Your task to perform on an android device: allow notifications from all sites in the chrome app Image 0: 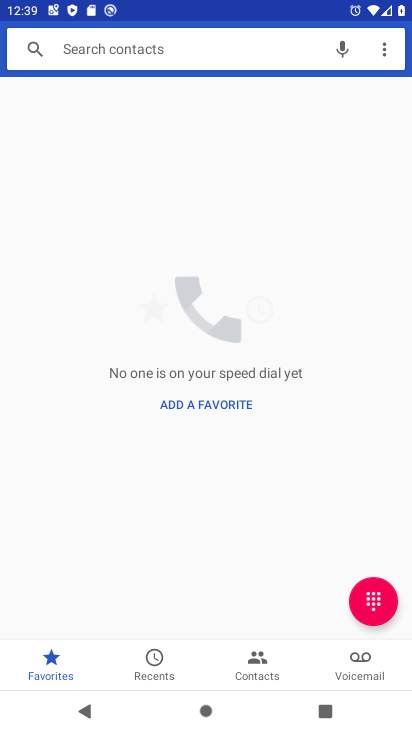
Step 0: press home button
Your task to perform on an android device: allow notifications from all sites in the chrome app Image 1: 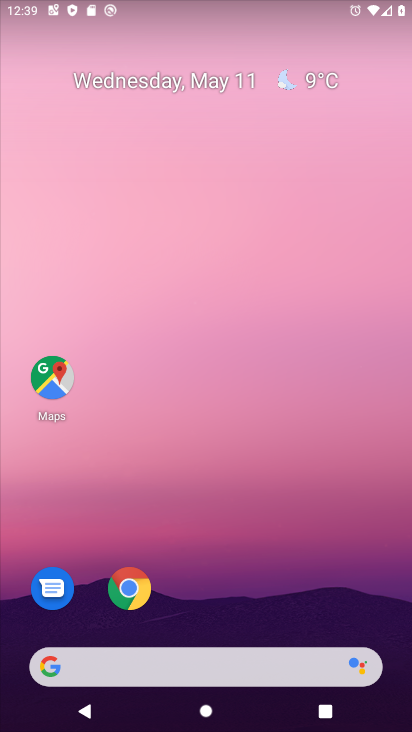
Step 1: click (132, 595)
Your task to perform on an android device: allow notifications from all sites in the chrome app Image 2: 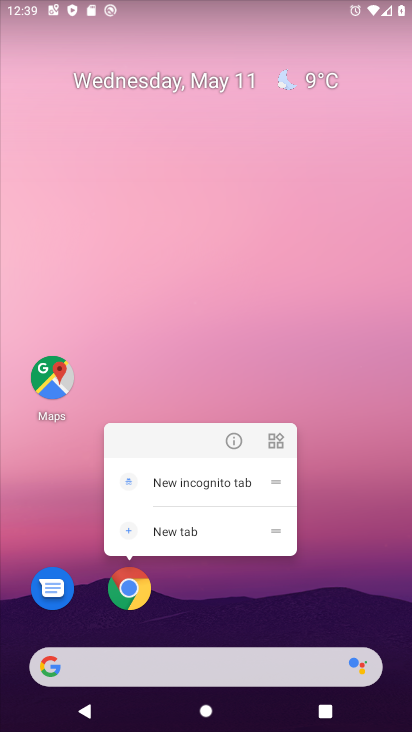
Step 2: click (120, 594)
Your task to perform on an android device: allow notifications from all sites in the chrome app Image 3: 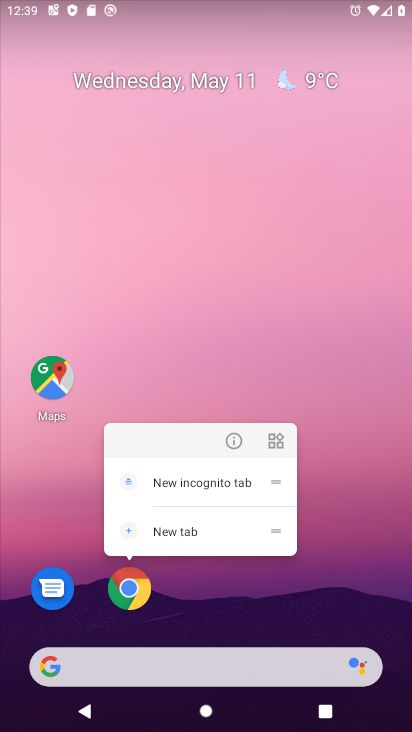
Step 3: click (133, 590)
Your task to perform on an android device: allow notifications from all sites in the chrome app Image 4: 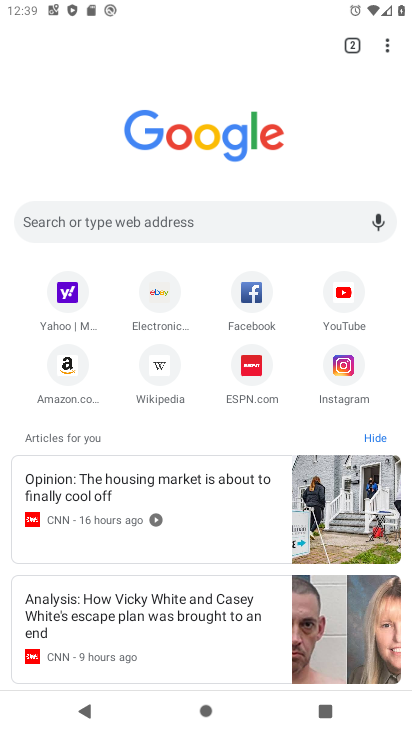
Step 4: click (387, 51)
Your task to perform on an android device: allow notifications from all sites in the chrome app Image 5: 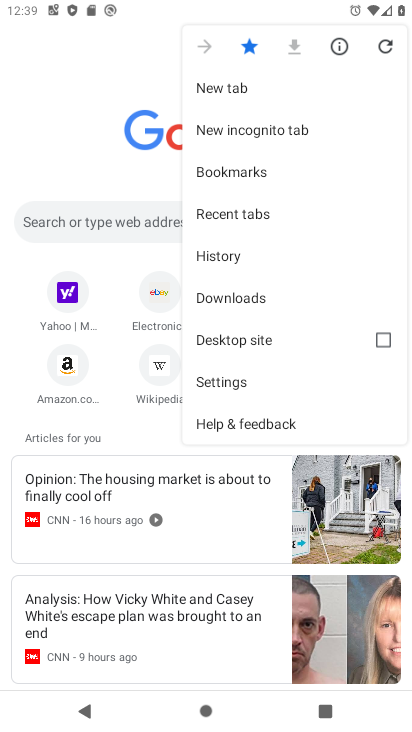
Step 5: click (227, 379)
Your task to perform on an android device: allow notifications from all sites in the chrome app Image 6: 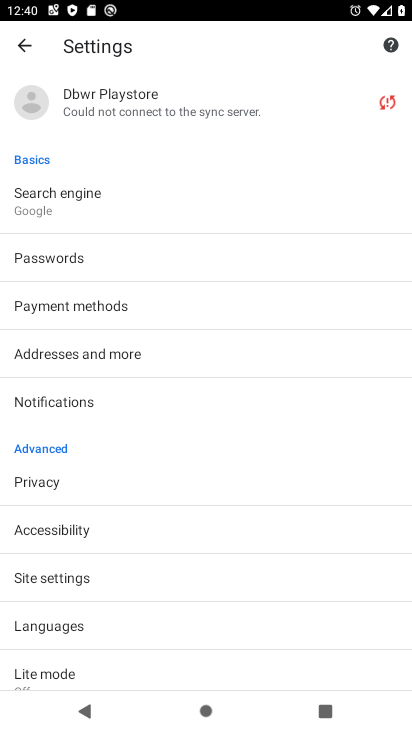
Step 6: click (51, 582)
Your task to perform on an android device: allow notifications from all sites in the chrome app Image 7: 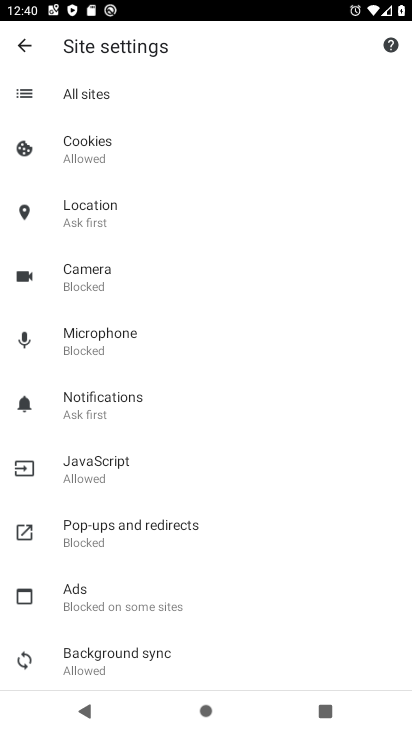
Step 7: click (107, 409)
Your task to perform on an android device: allow notifications from all sites in the chrome app Image 8: 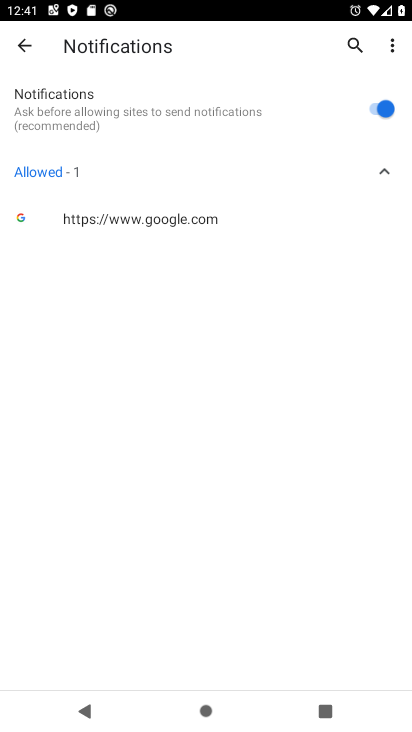
Step 8: task complete